Your task to perform on an android device: Turn off the flashlight Image 0: 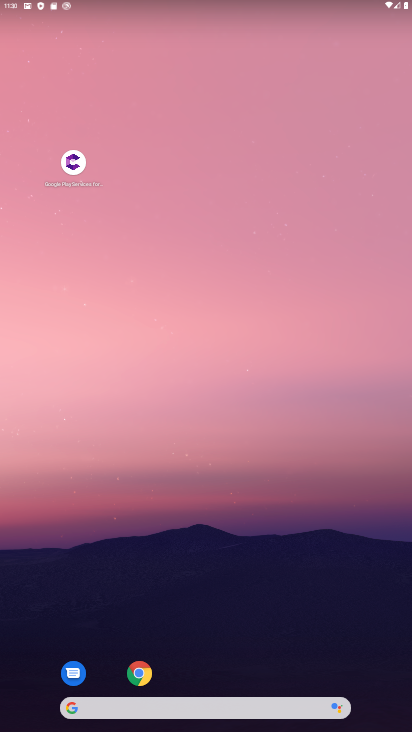
Step 0: task impossible